Your task to perform on an android device: turn off javascript in the chrome app Image 0: 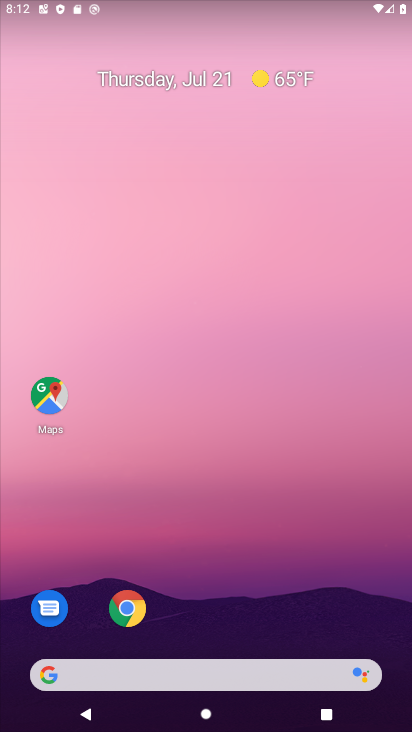
Step 0: click (128, 607)
Your task to perform on an android device: turn off javascript in the chrome app Image 1: 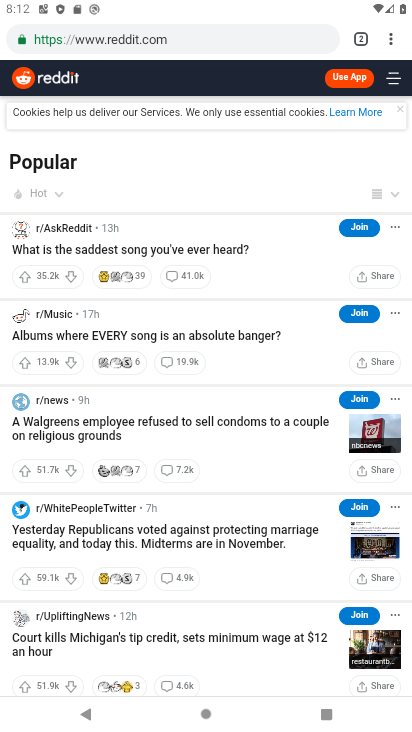
Step 1: click (390, 38)
Your task to perform on an android device: turn off javascript in the chrome app Image 2: 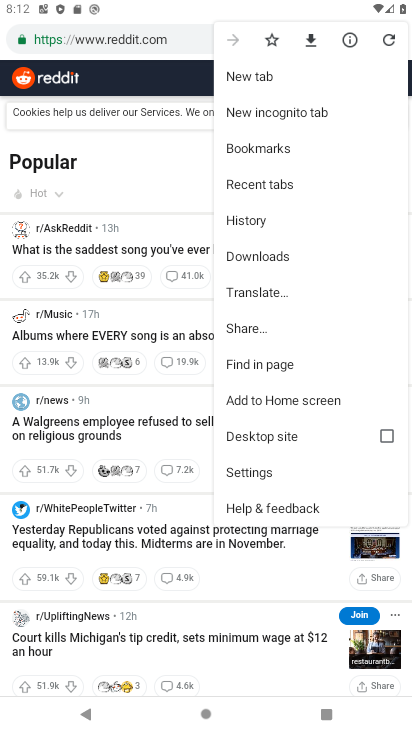
Step 2: click (257, 472)
Your task to perform on an android device: turn off javascript in the chrome app Image 3: 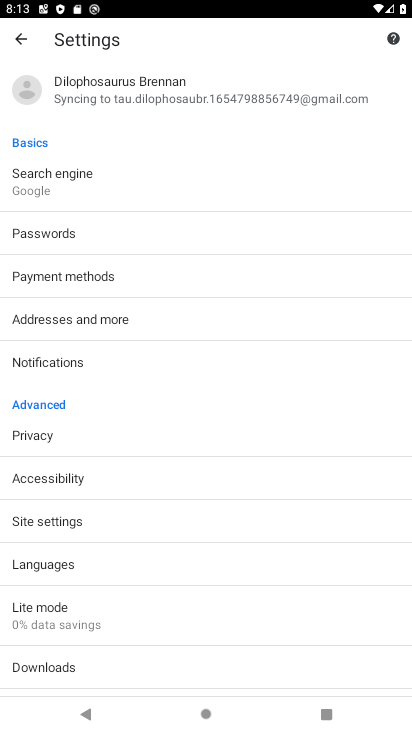
Step 3: click (43, 518)
Your task to perform on an android device: turn off javascript in the chrome app Image 4: 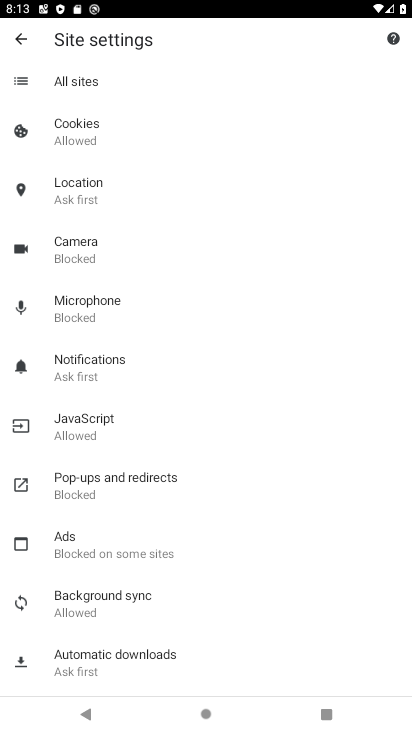
Step 4: click (92, 422)
Your task to perform on an android device: turn off javascript in the chrome app Image 5: 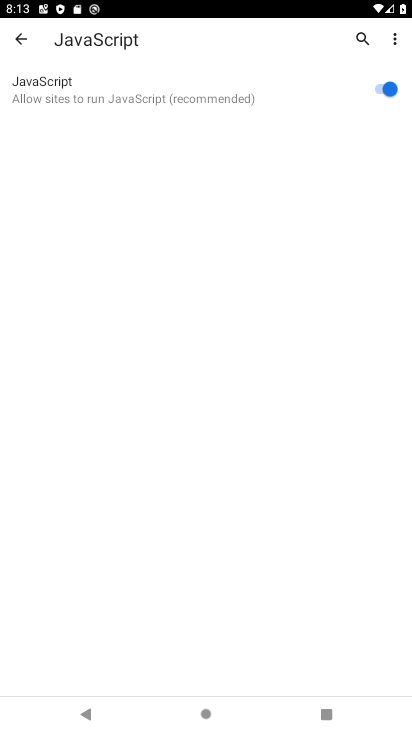
Step 5: click (383, 87)
Your task to perform on an android device: turn off javascript in the chrome app Image 6: 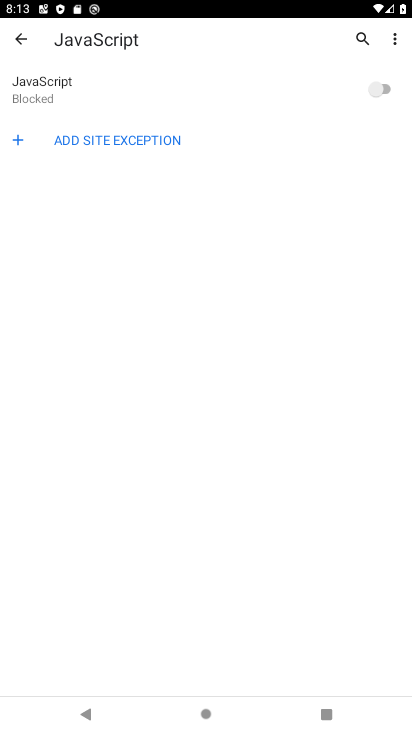
Step 6: task complete